Your task to perform on an android device: turn on translation in the chrome app Image 0: 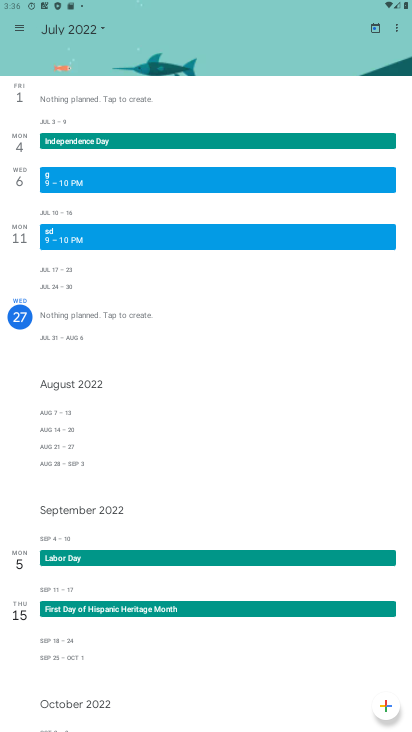
Step 0: press home button
Your task to perform on an android device: turn on translation in the chrome app Image 1: 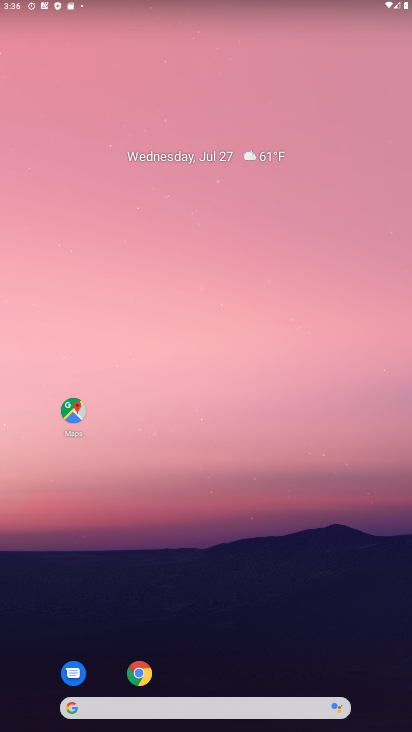
Step 1: click (129, 680)
Your task to perform on an android device: turn on translation in the chrome app Image 2: 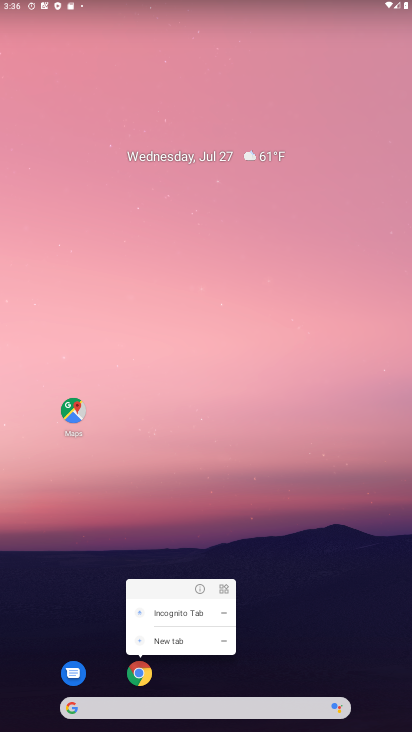
Step 2: click (141, 666)
Your task to perform on an android device: turn on translation in the chrome app Image 3: 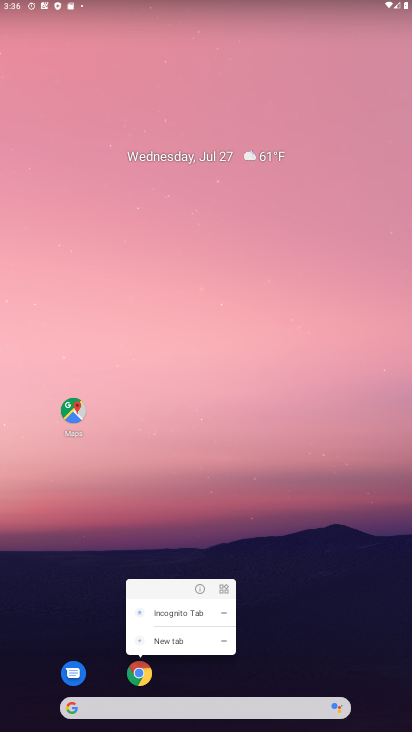
Step 3: click (133, 689)
Your task to perform on an android device: turn on translation in the chrome app Image 4: 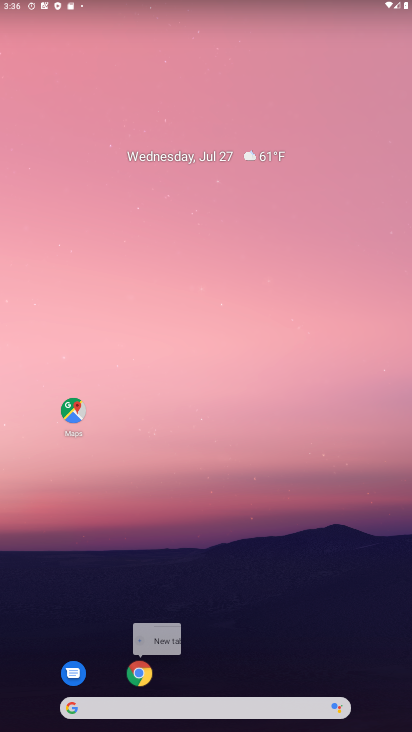
Step 4: click (133, 680)
Your task to perform on an android device: turn on translation in the chrome app Image 5: 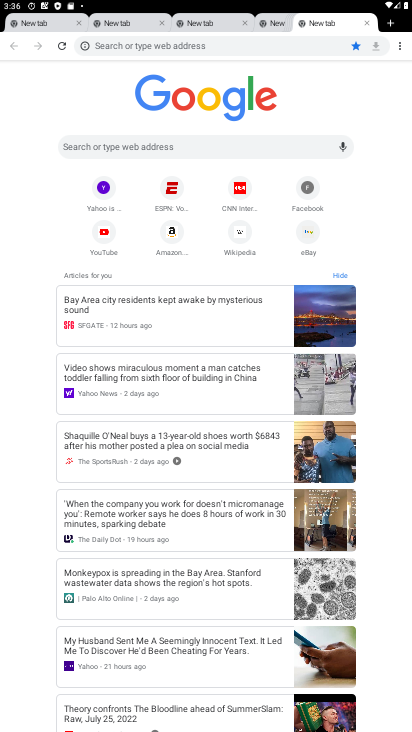
Step 5: click (391, 42)
Your task to perform on an android device: turn on translation in the chrome app Image 6: 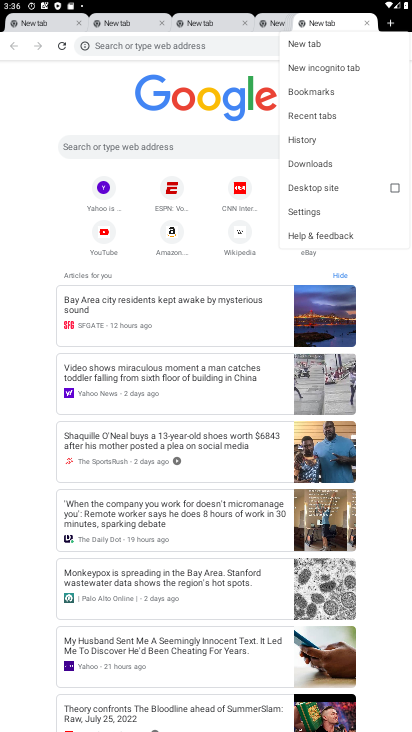
Step 6: click (304, 213)
Your task to perform on an android device: turn on translation in the chrome app Image 7: 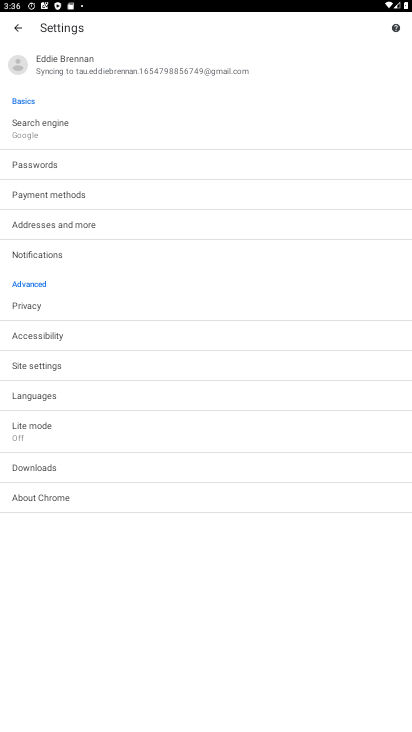
Step 7: click (45, 400)
Your task to perform on an android device: turn on translation in the chrome app Image 8: 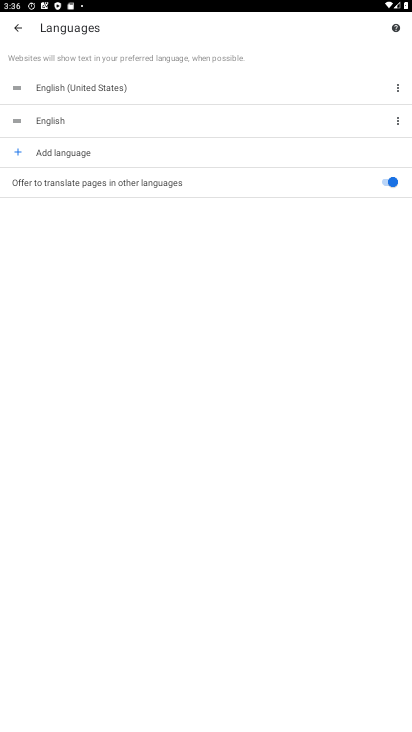
Step 8: task complete